Your task to perform on an android device: search for starred emails in the gmail app Image 0: 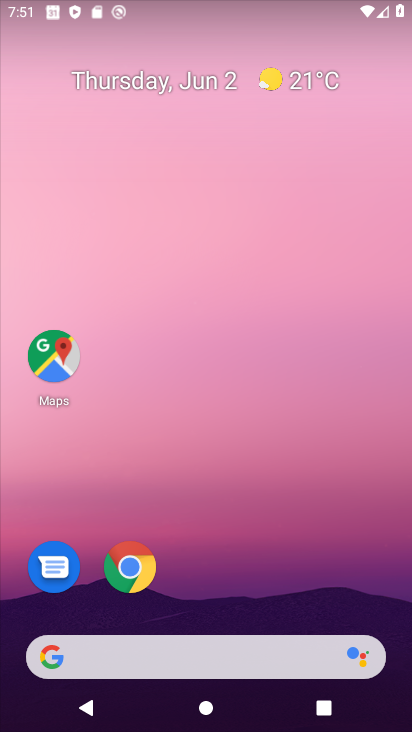
Step 0: drag from (370, 612) to (256, 0)
Your task to perform on an android device: search for starred emails in the gmail app Image 1: 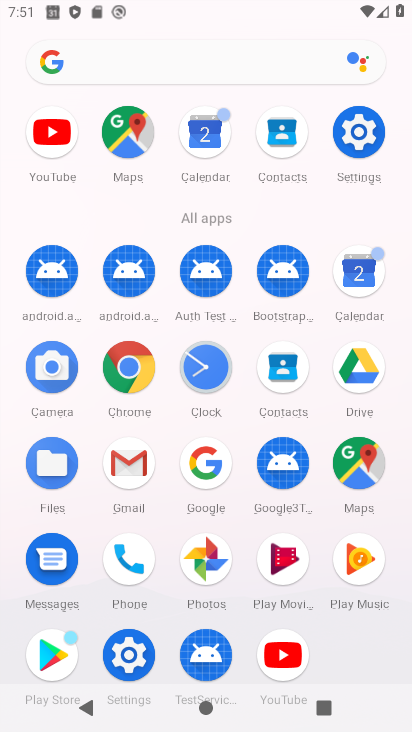
Step 1: click (125, 462)
Your task to perform on an android device: search for starred emails in the gmail app Image 2: 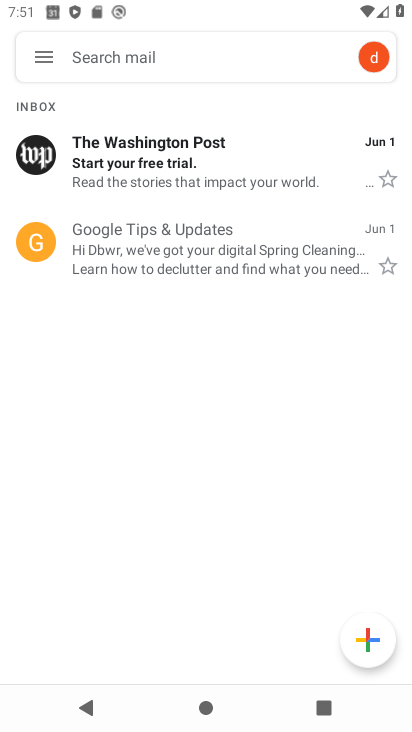
Step 2: click (45, 56)
Your task to perform on an android device: search for starred emails in the gmail app Image 3: 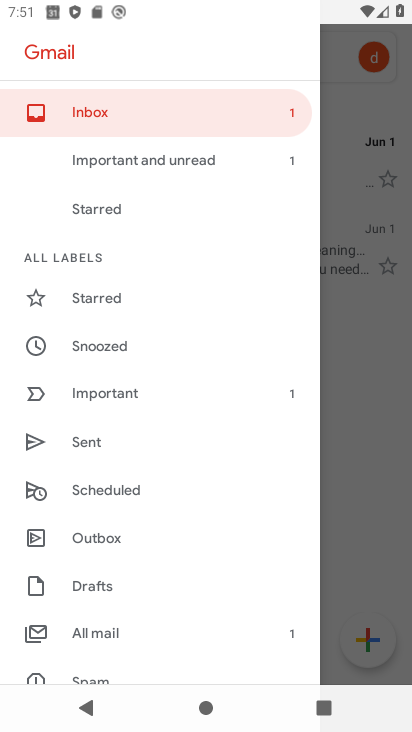
Step 3: click (106, 290)
Your task to perform on an android device: search for starred emails in the gmail app Image 4: 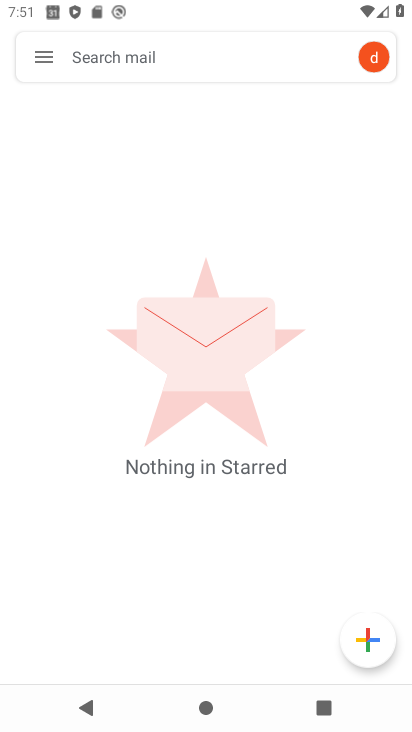
Step 4: task complete